Your task to perform on an android device: all mails in gmail Image 0: 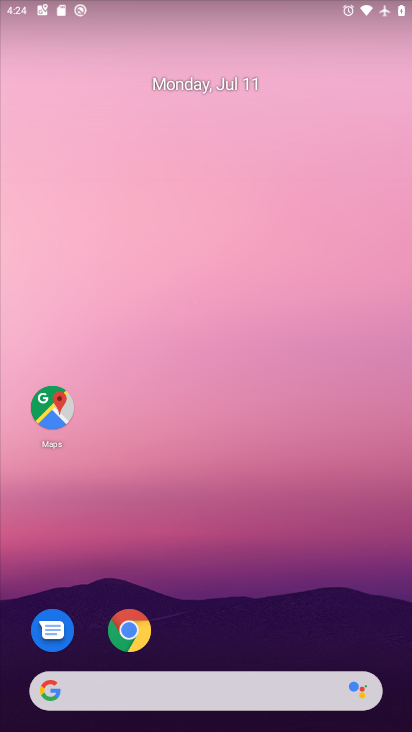
Step 0: click (209, 685)
Your task to perform on an android device: all mails in gmail Image 1: 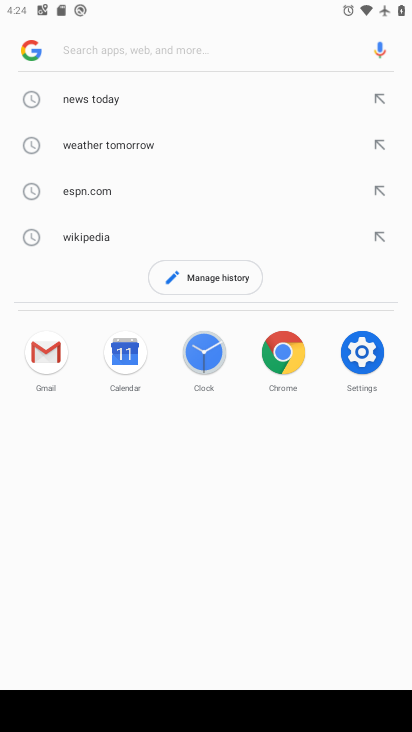
Step 1: type "ebay"
Your task to perform on an android device: all mails in gmail Image 2: 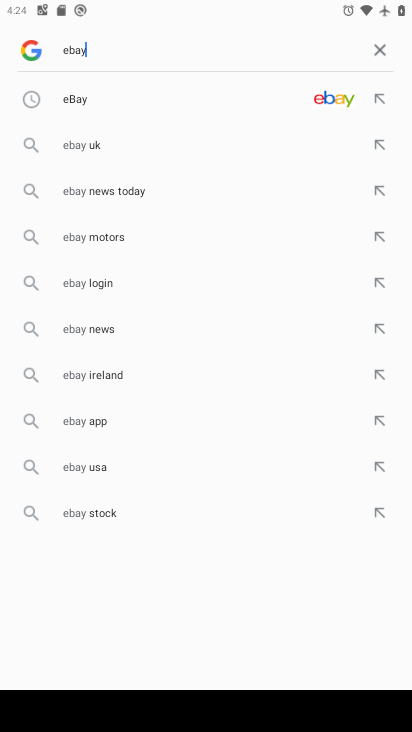
Step 2: click (131, 111)
Your task to perform on an android device: all mails in gmail Image 3: 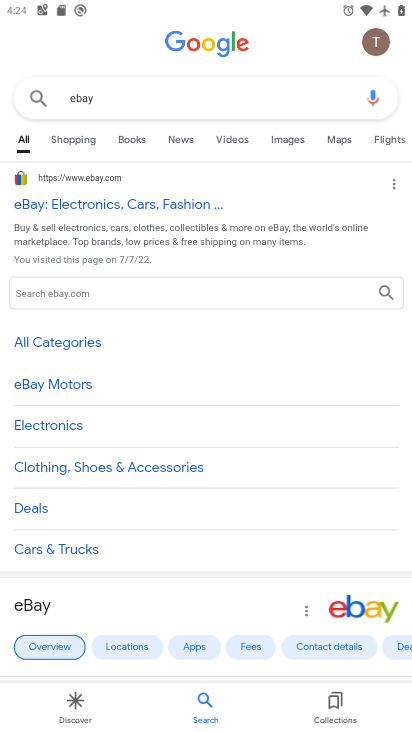
Step 3: task complete